Your task to perform on an android device: turn off improve location accuracy Image 0: 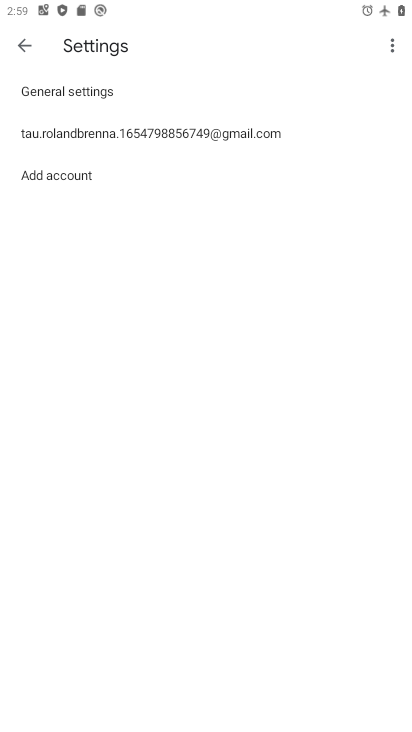
Step 0: task complete